Your task to perform on an android device: open the mobile data screen to see how much data has been used Image 0: 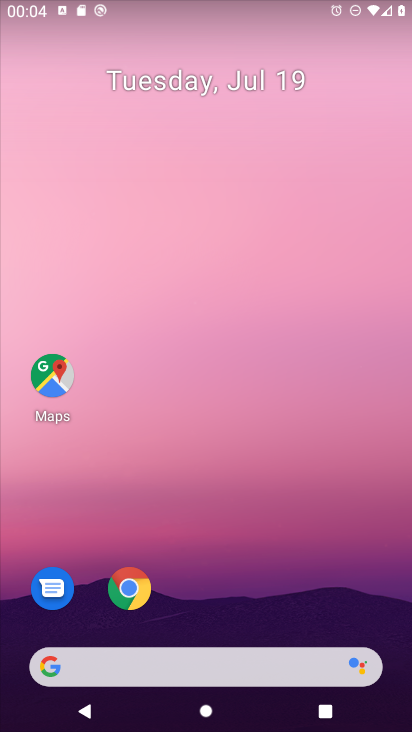
Step 0: press home button
Your task to perform on an android device: open the mobile data screen to see how much data has been used Image 1: 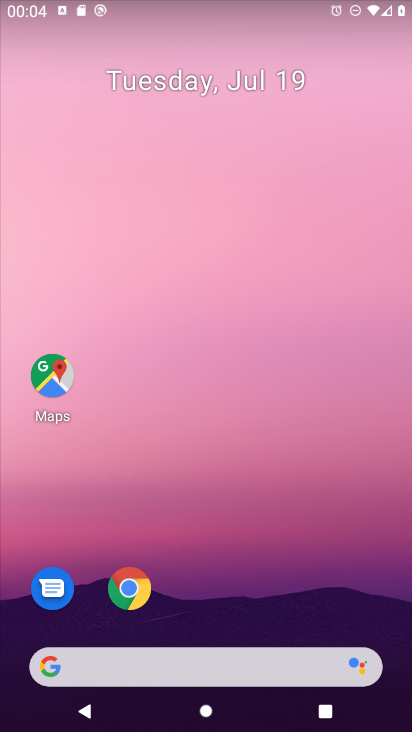
Step 1: drag from (358, 600) to (345, 103)
Your task to perform on an android device: open the mobile data screen to see how much data has been used Image 2: 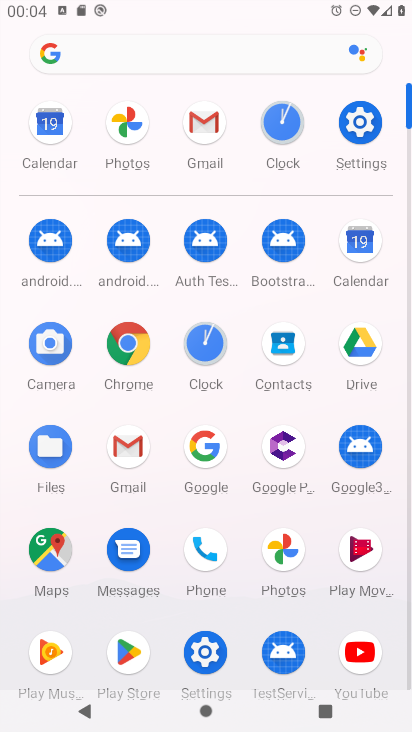
Step 2: click (207, 649)
Your task to perform on an android device: open the mobile data screen to see how much data has been used Image 3: 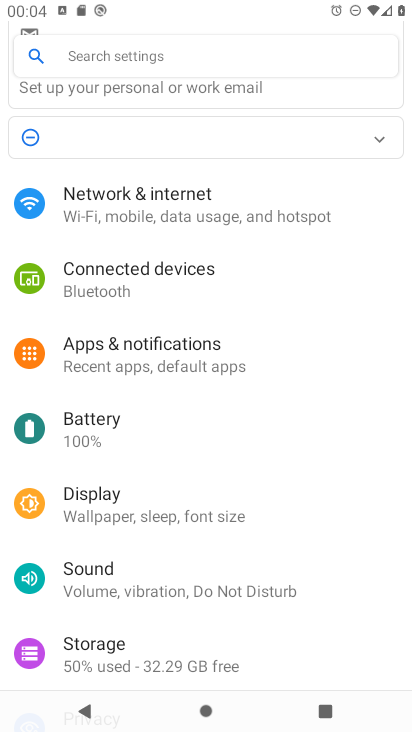
Step 3: click (121, 198)
Your task to perform on an android device: open the mobile data screen to see how much data has been used Image 4: 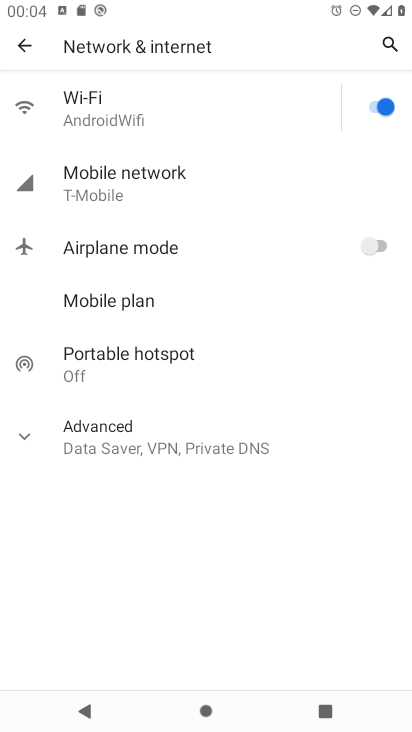
Step 4: click (100, 185)
Your task to perform on an android device: open the mobile data screen to see how much data has been used Image 5: 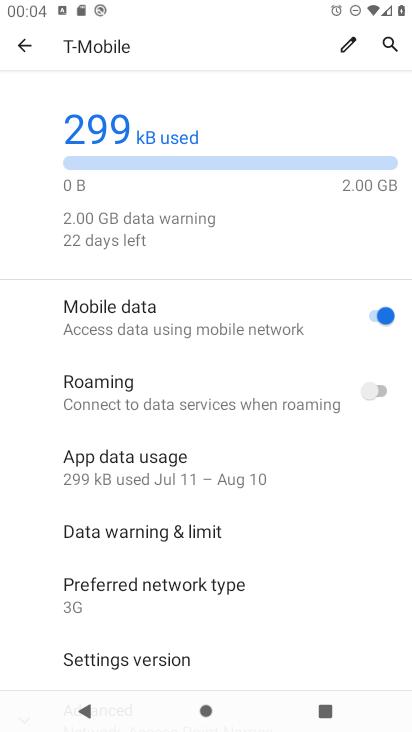
Step 5: task complete